Your task to perform on an android device: toggle translation in the chrome app Image 0: 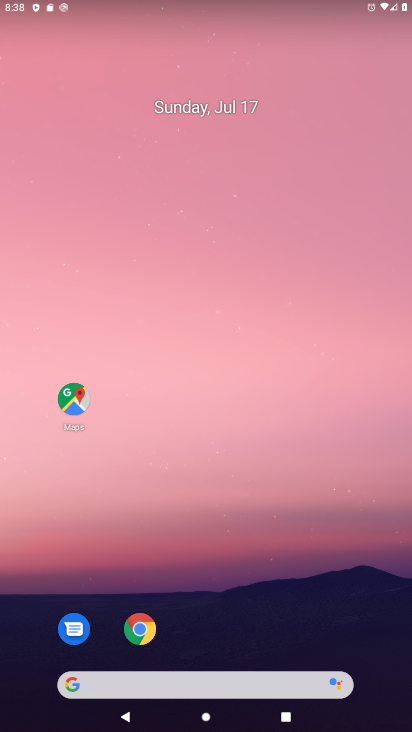
Step 0: click (148, 623)
Your task to perform on an android device: toggle translation in the chrome app Image 1: 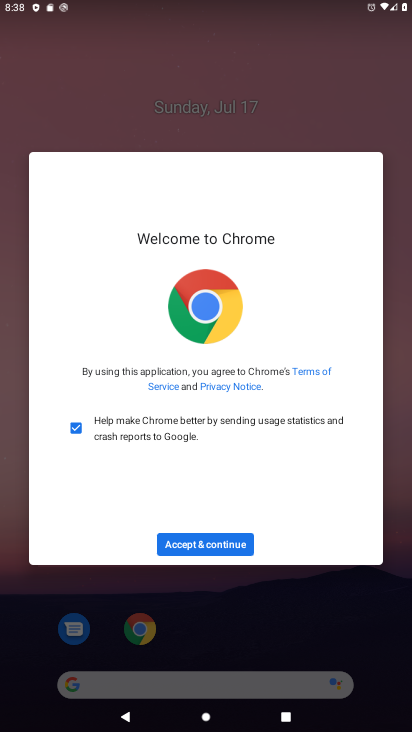
Step 1: click (201, 537)
Your task to perform on an android device: toggle translation in the chrome app Image 2: 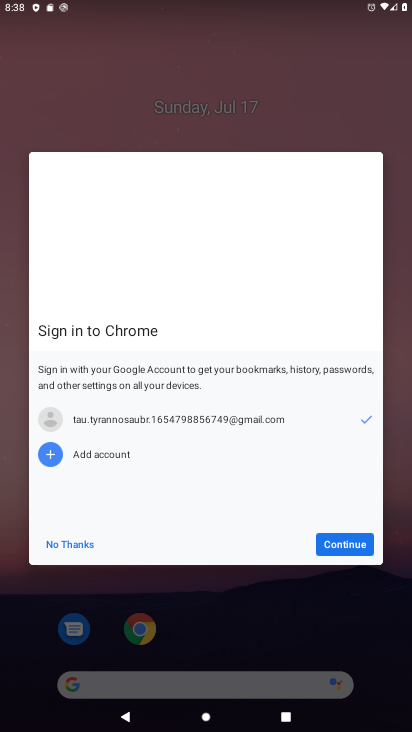
Step 2: click (344, 544)
Your task to perform on an android device: toggle translation in the chrome app Image 3: 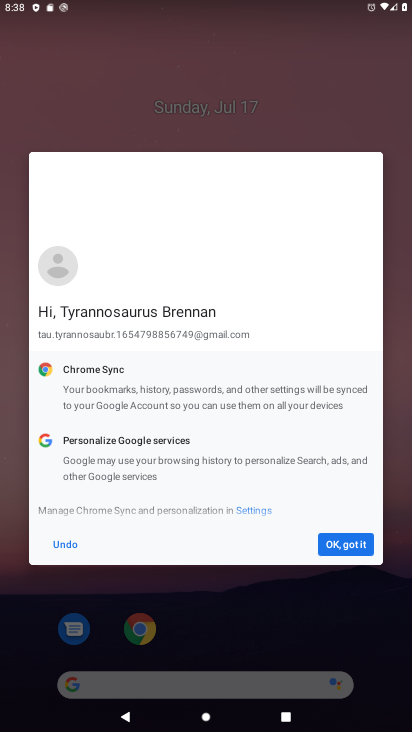
Step 3: click (344, 544)
Your task to perform on an android device: toggle translation in the chrome app Image 4: 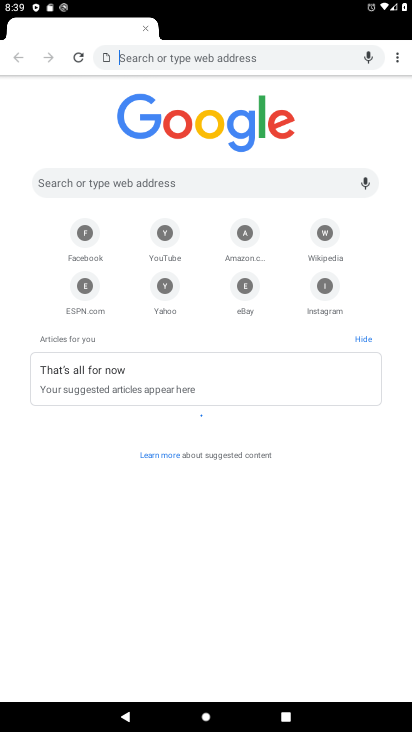
Step 4: click (391, 53)
Your task to perform on an android device: toggle translation in the chrome app Image 5: 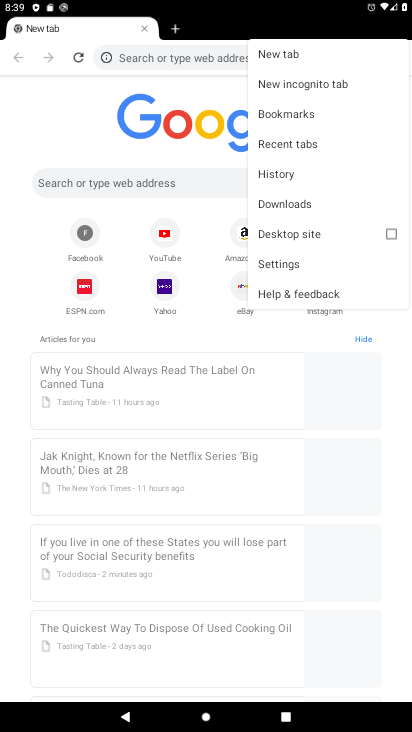
Step 5: click (279, 271)
Your task to perform on an android device: toggle translation in the chrome app Image 6: 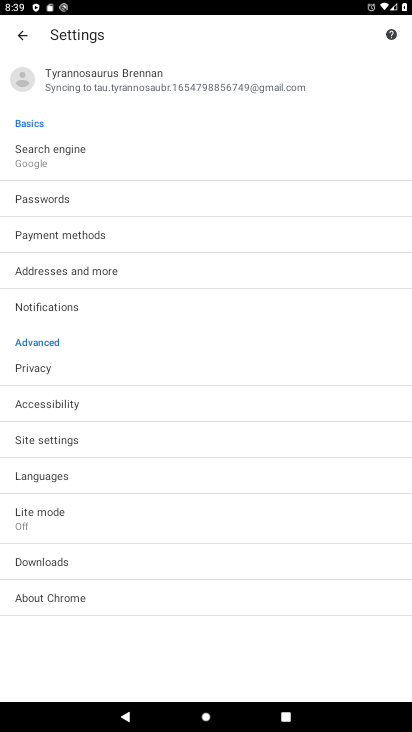
Step 6: click (162, 474)
Your task to perform on an android device: toggle translation in the chrome app Image 7: 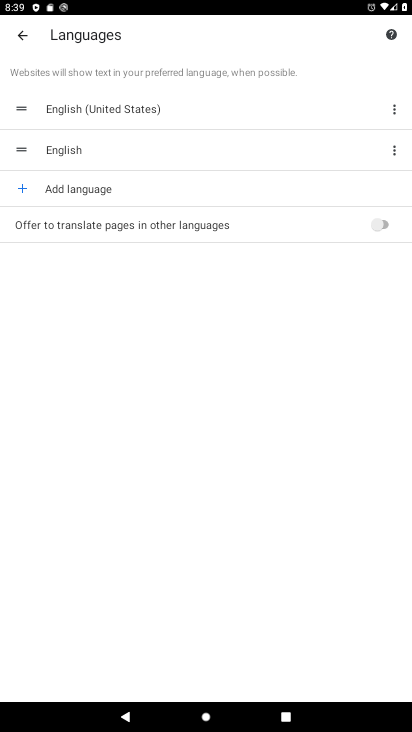
Step 7: click (387, 220)
Your task to perform on an android device: toggle translation in the chrome app Image 8: 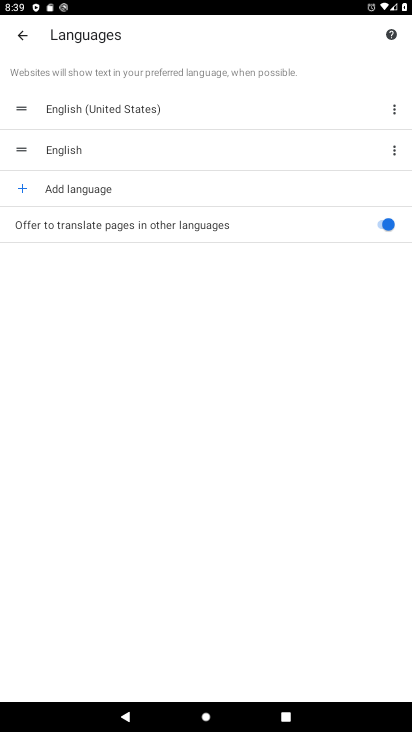
Step 8: task complete